Your task to perform on an android device: turn off translation in the chrome app Image 0: 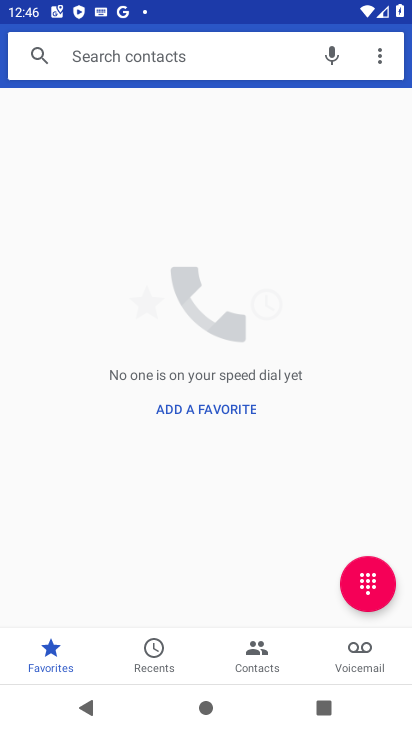
Step 0: press home button
Your task to perform on an android device: turn off translation in the chrome app Image 1: 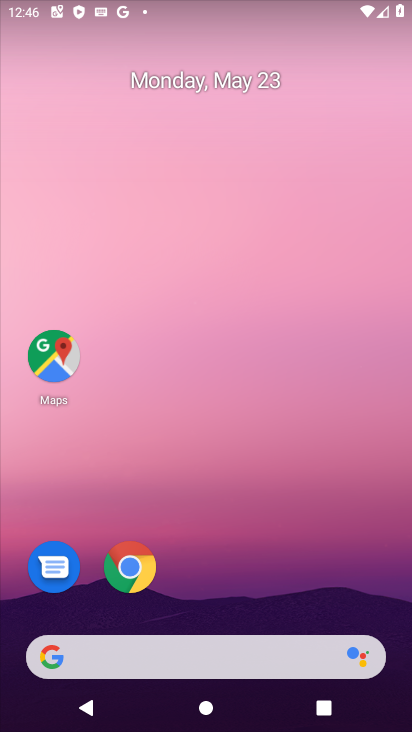
Step 1: drag from (208, 618) to (165, 193)
Your task to perform on an android device: turn off translation in the chrome app Image 2: 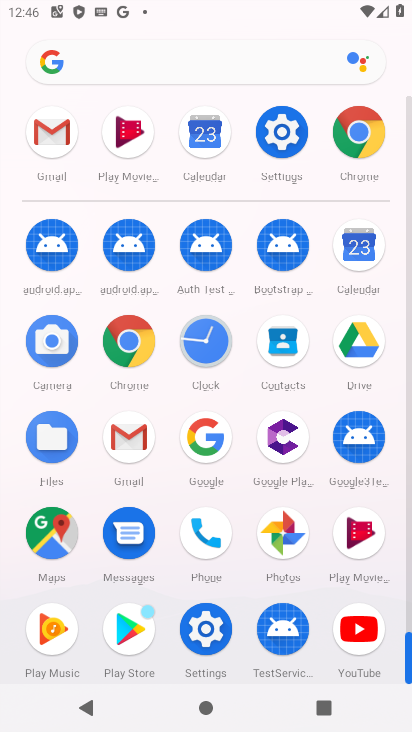
Step 2: click (363, 140)
Your task to perform on an android device: turn off translation in the chrome app Image 3: 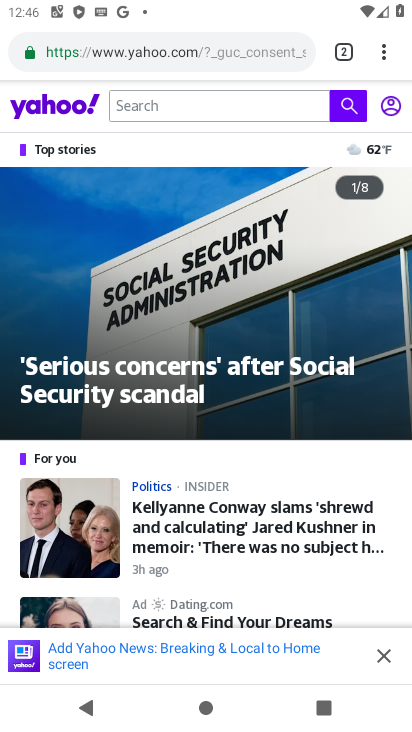
Step 3: click (377, 68)
Your task to perform on an android device: turn off translation in the chrome app Image 4: 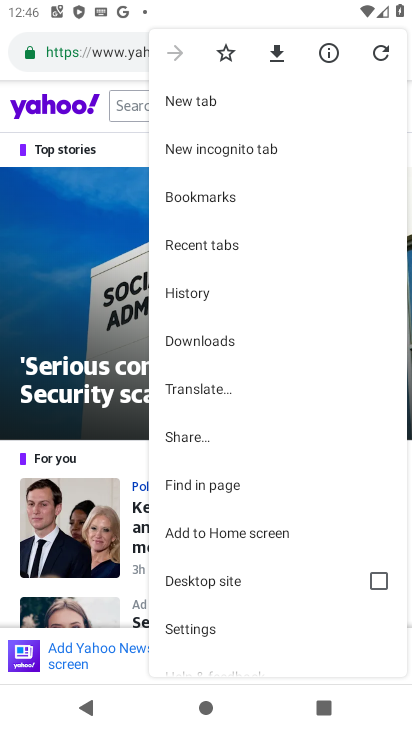
Step 4: click (271, 636)
Your task to perform on an android device: turn off translation in the chrome app Image 5: 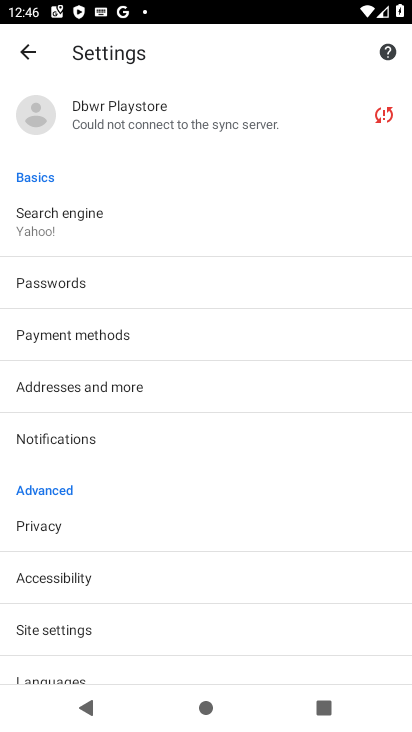
Step 5: drag from (142, 659) to (117, 239)
Your task to perform on an android device: turn off translation in the chrome app Image 6: 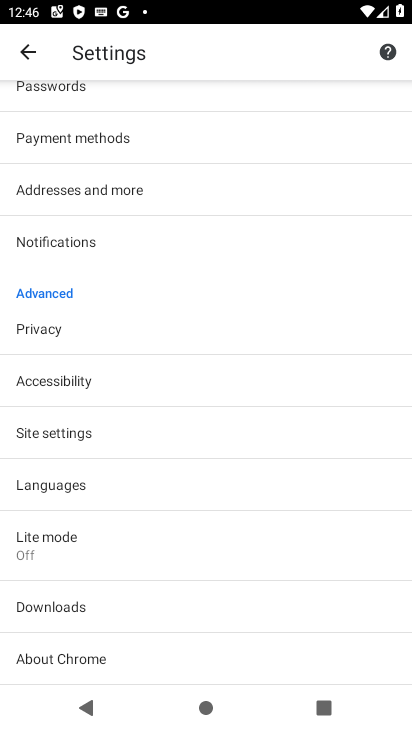
Step 6: click (85, 495)
Your task to perform on an android device: turn off translation in the chrome app Image 7: 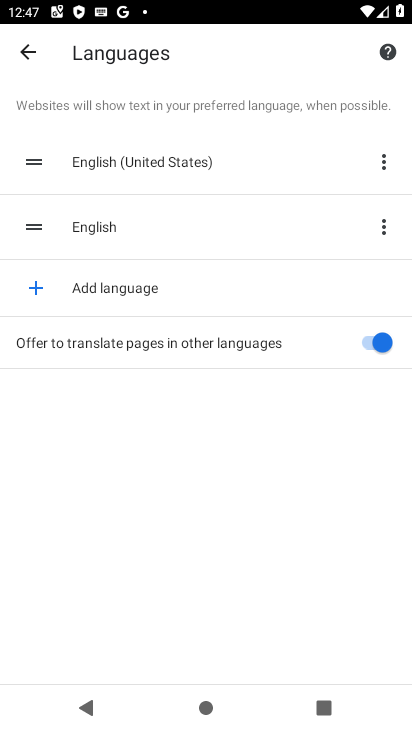
Step 7: click (367, 347)
Your task to perform on an android device: turn off translation in the chrome app Image 8: 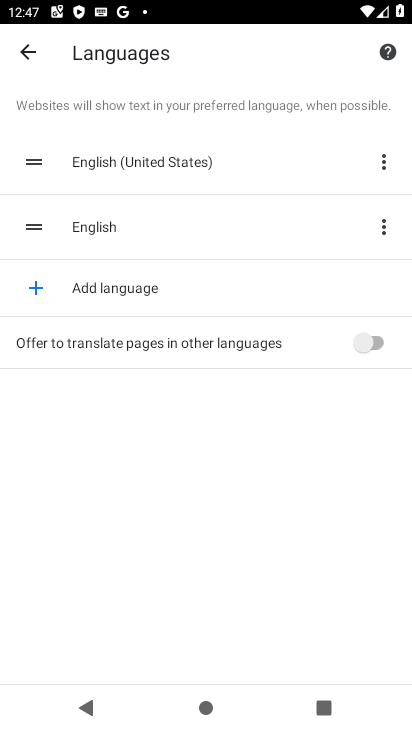
Step 8: task complete